Your task to perform on an android device: Open notification settings Image 0: 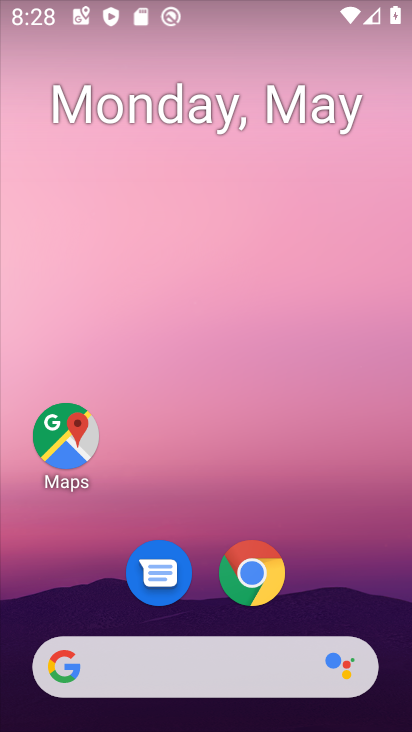
Step 0: drag from (360, 576) to (342, 126)
Your task to perform on an android device: Open notification settings Image 1: 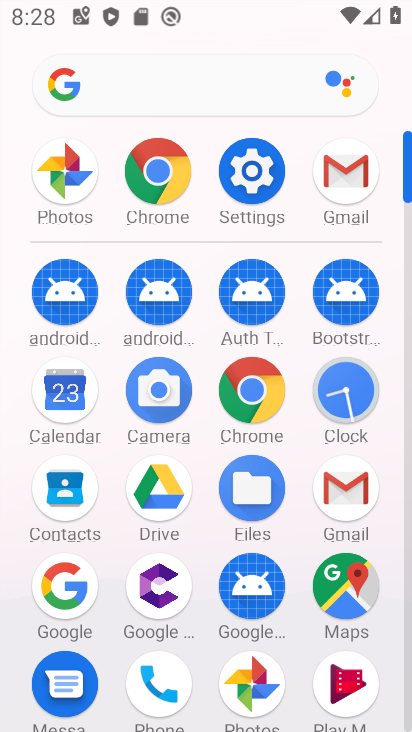
Step 1: click (253, 166)
Your task to perform on an android device: Open notification settings Image 2: 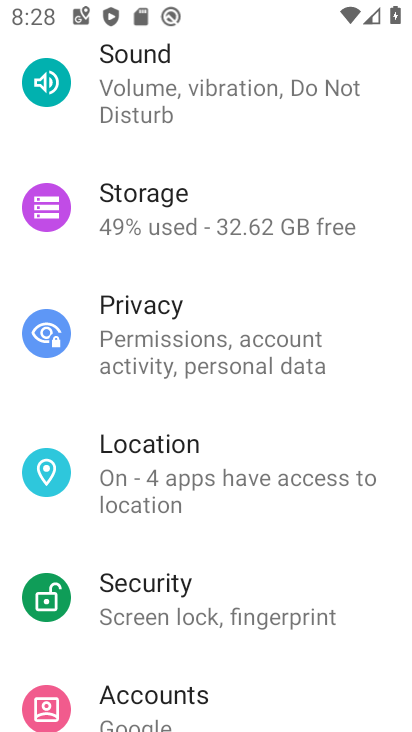
Step 2: drag from (280, 514) to (253, 683)
Your task to perform on an android device: Open notification settings Image 3: 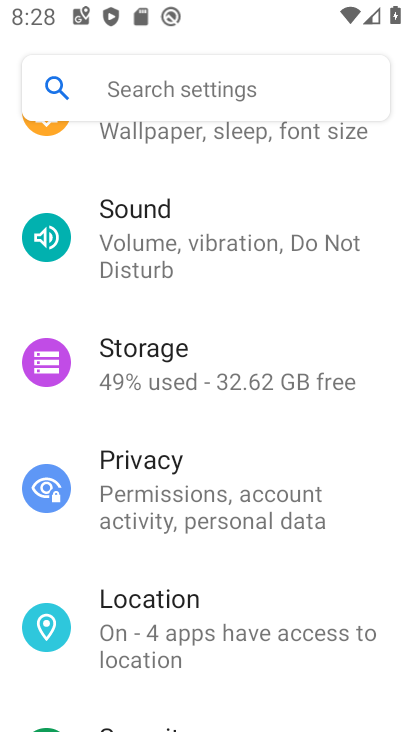
Step 3: drag from (268, 324) to (241, 612)
Your task to perform on an android device: Open notification settings Image 4: 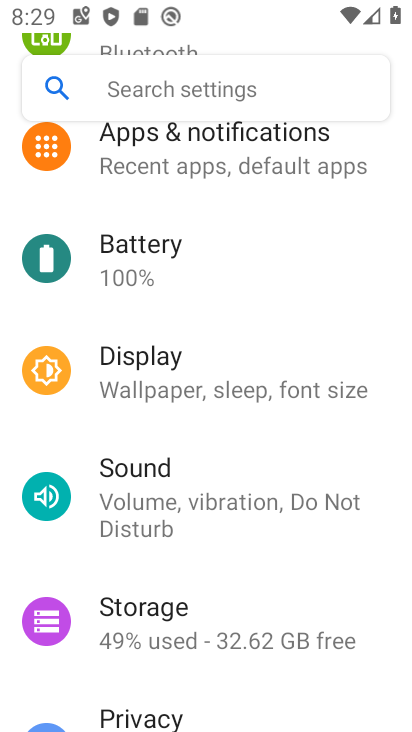
Step 4: click (274, 202)
Your task to perform on an android device: Open notification settings Image 5: 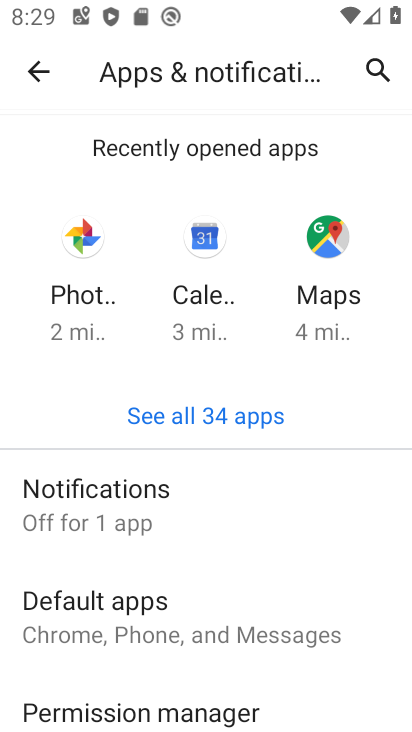
Step 5: task complete